Your task to perform on an android device: turn on location history Image 0: 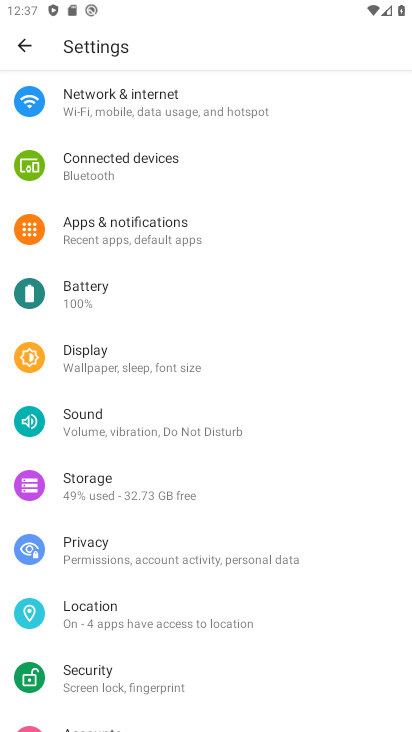
Step 0: click (87, 603)
Your task to perform on an android device: turn on location history Image 1: 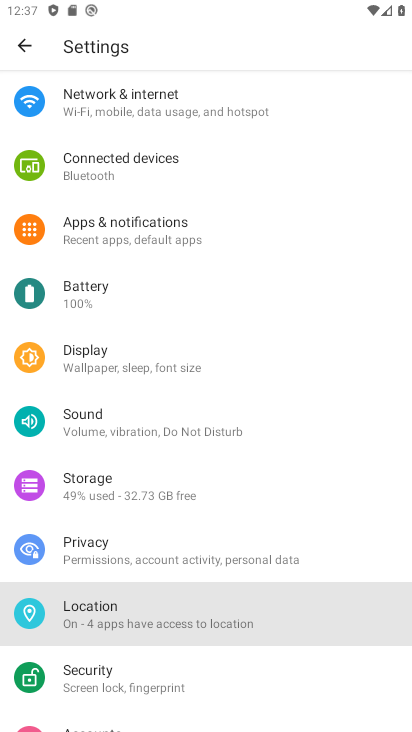
Step 1: click (135, 621)
Your task to perform on an android device: turn on location history Image 2: 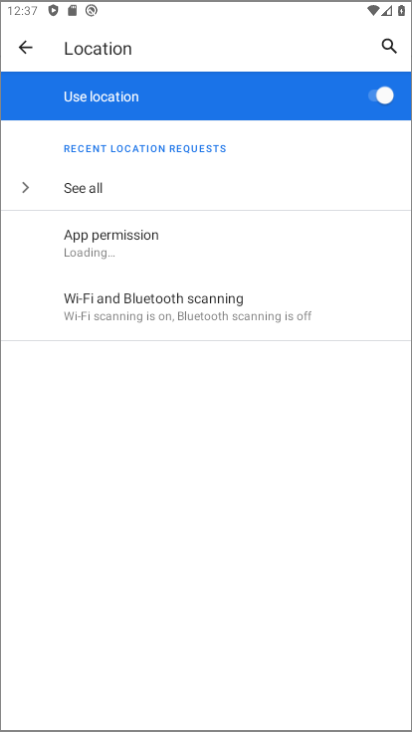
Step 2: click (186, 621)
Your task to perform on an android device: turn on location history Image 3: 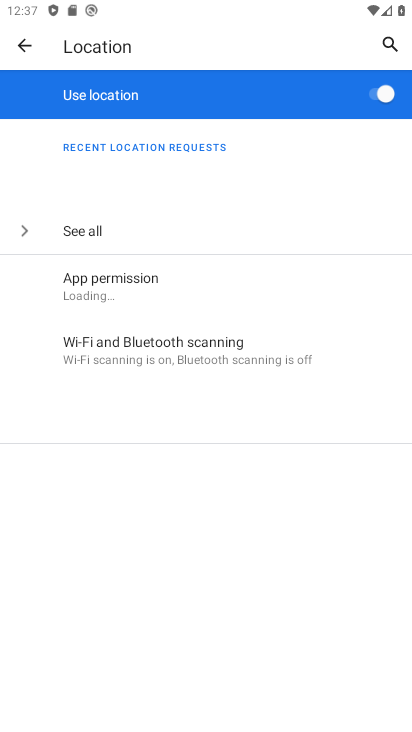
Step 3: click (186, 621)
Your task to perform on an android device: turn on location history Image 4: 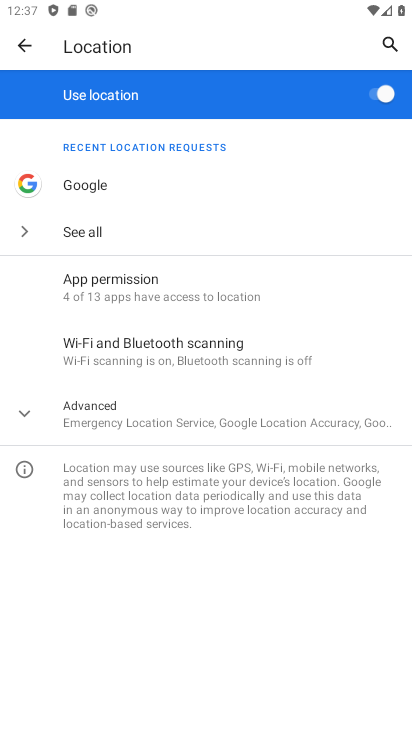
Step 4: task complete